Your task to perform on an android device: Open my contact list Image 0: 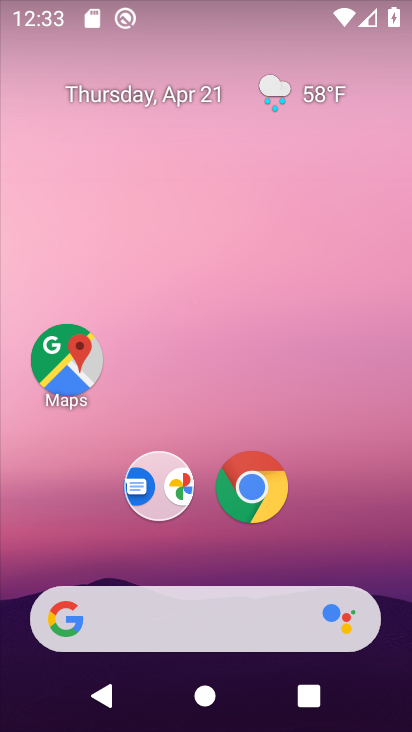
Step 0: drag from (268, 635) to (249, 188)
Your task to perform on an android device: Open my contact list Image 1: 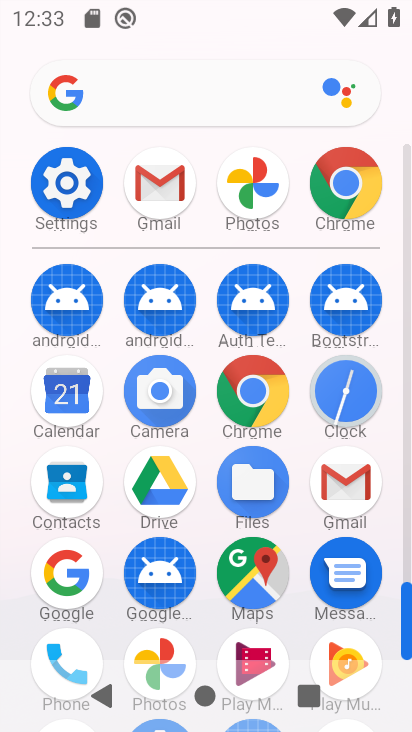
Step 1: click (53, 480)
Your task to perform on an android device: Open my contact list Image 2: 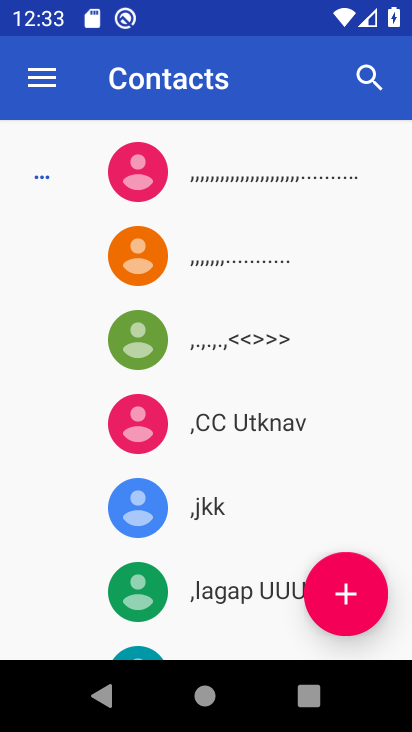
Step 2: task complete